Your task to perform on an android device: set default search engine in the chrome app Image 0: 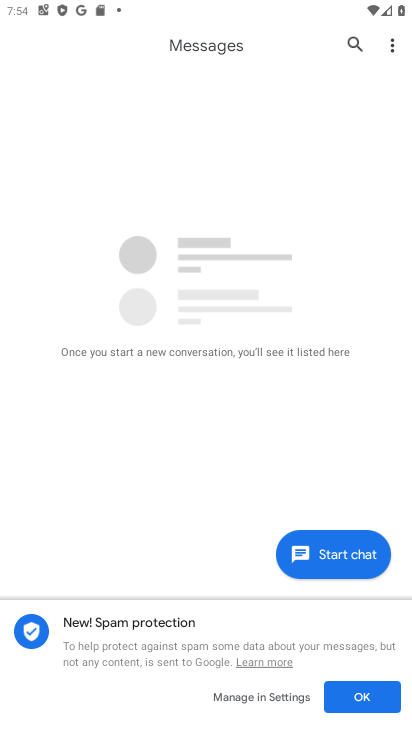
Step 0: drag from (235, 707) to (238, 173)
Your task to perform on an android device: set default search engine in the chrome app Image 1: 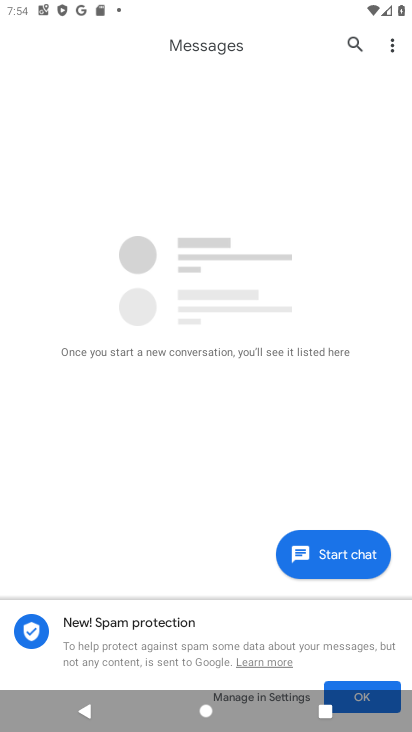
Step 1: press home button
Your task to perform on an android device: set default search engine in the chrome app Image 2: 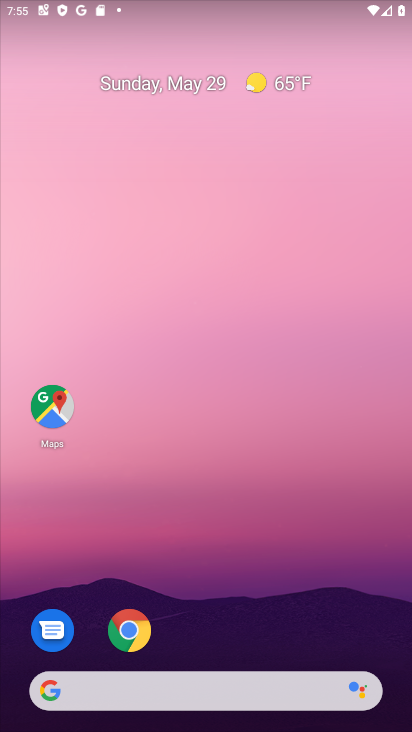
Step 2: click (134, 639)
Your task to perform on an android device: set default search engine in the chrome app Image 3: 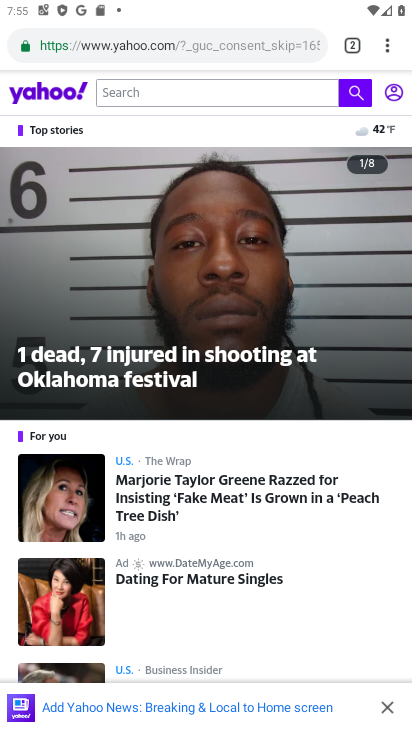
Step 3: click (385, 53)
Your task to perform on an android device: set default search engine in the chrome app Image 4: 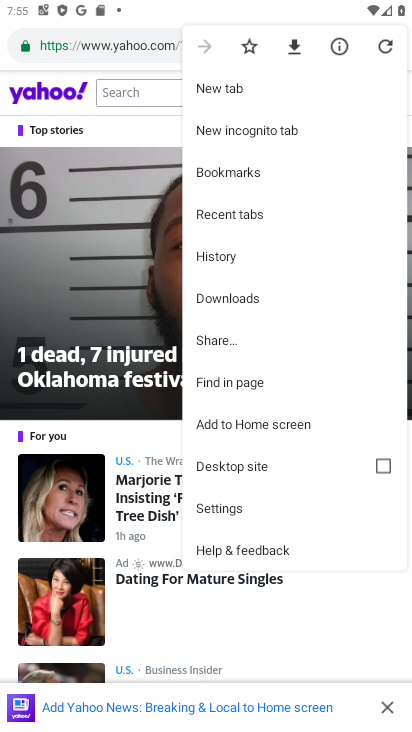
Step 4: click (213, 504)
Your task to perform on an android device: set default search engine in the chrome app Image 5: 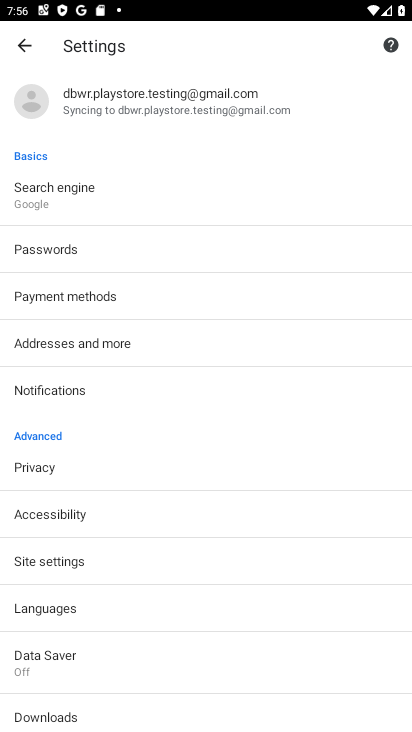
Step 5: click (50, 196)
Your task to perform on an android device: set default search engine in the chrome app Image 6: 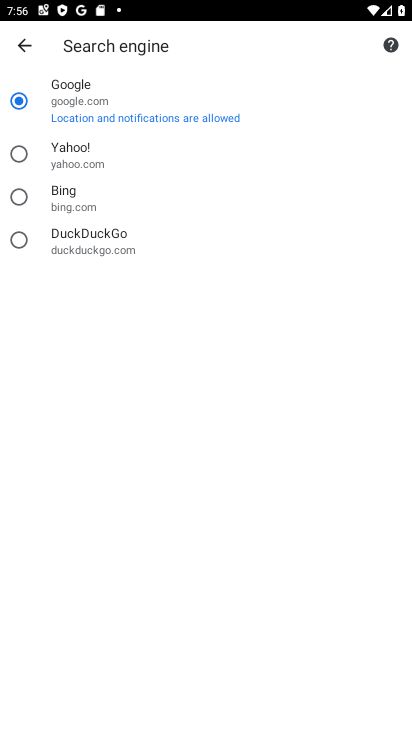
Step 6: click (15, 154)
Your task to perform on an android device: set default search engine in the chrome app Image 7: 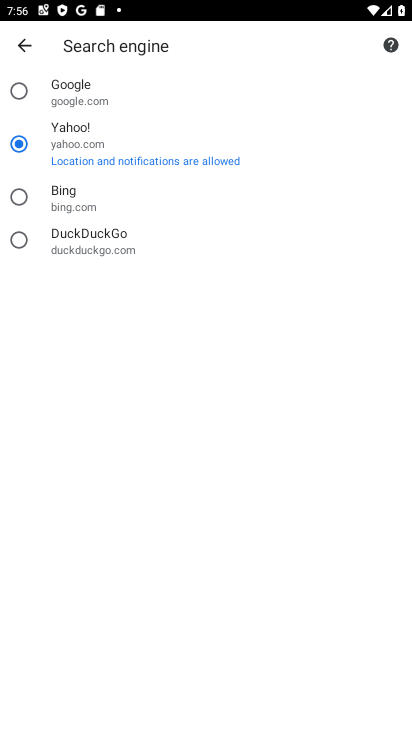
Step 7: task complete